Your task to perform on an android device: delete location history Image 0: 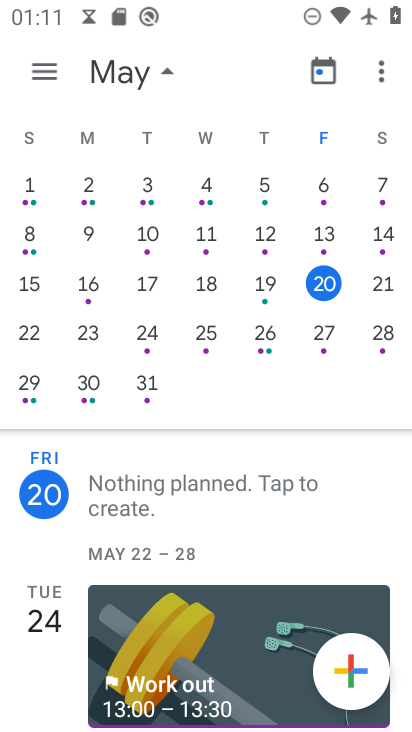
Step 0: press home button
Your task to perform on an android device: delete location history Image 1: 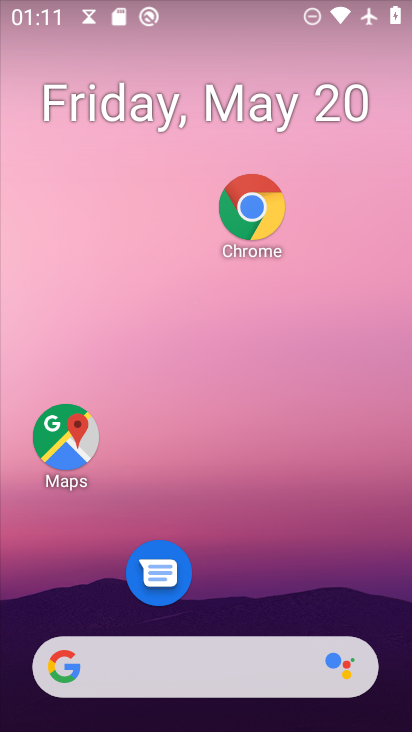
Step 1: drag from (215, 580) to (288, 123)
Your task to perform on an android device: delete location history Image 2: 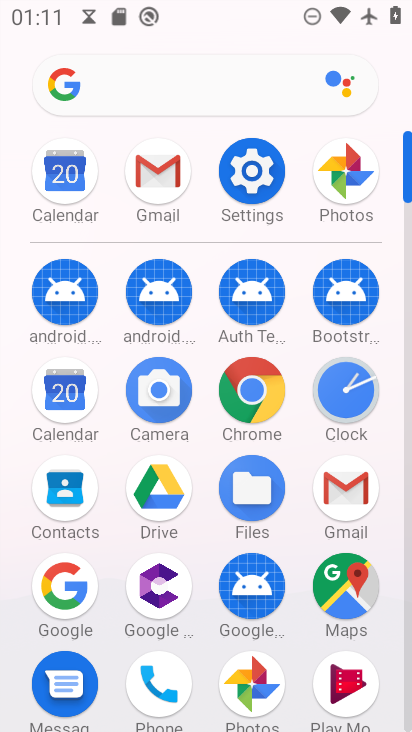
Step 2: click (349, 574)
Your task to perform on an android device: delete location history Image 3: 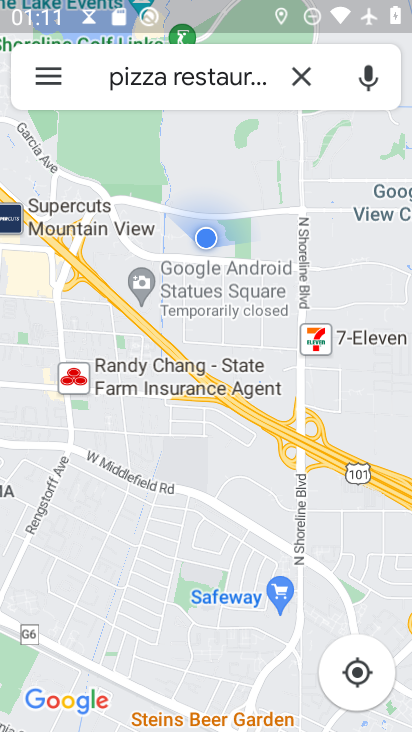
Step 3: click (55, 70)
Your task to perform on an android device: delete location history Image 4: 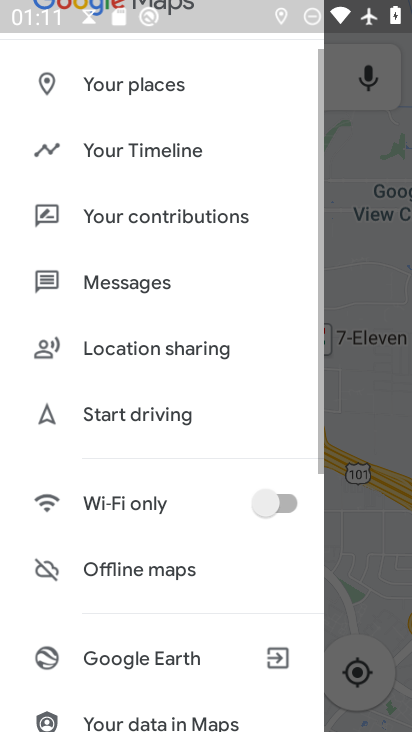
Step 4: click (130, 145)
Your task to perform on an android device: delete location history Image 5: 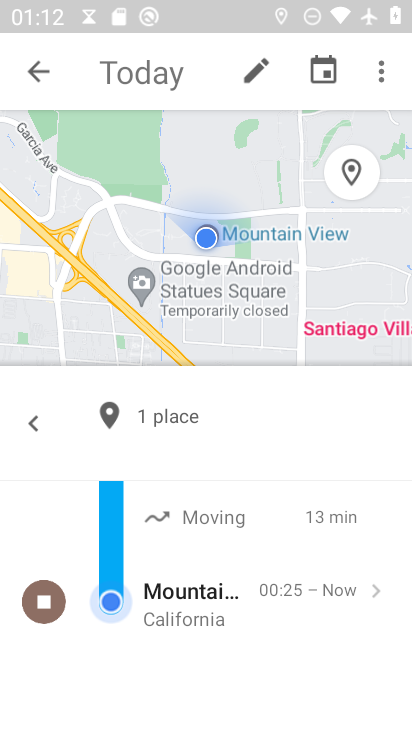
Step 5: click (379, 75)
Your task to perform on an android device: delete location history Image 6: 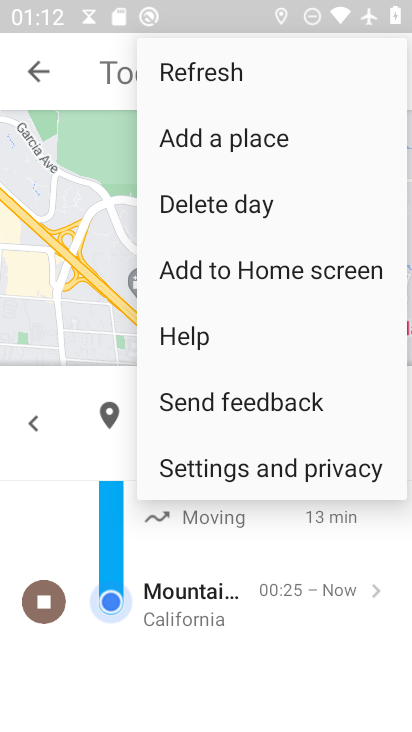
Step 6: click (210, 457)
Your task to perform on an android device: delete location history Image 7: 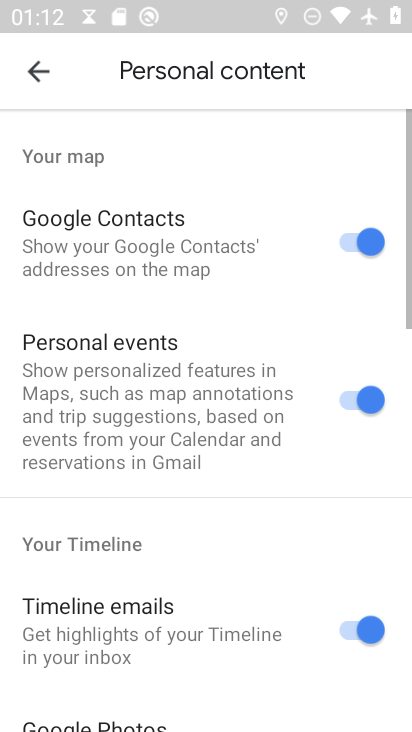
Step 7: drag from (113, 596) to (116, 160)
Your task to perform on an android device: delete location history Image 8: 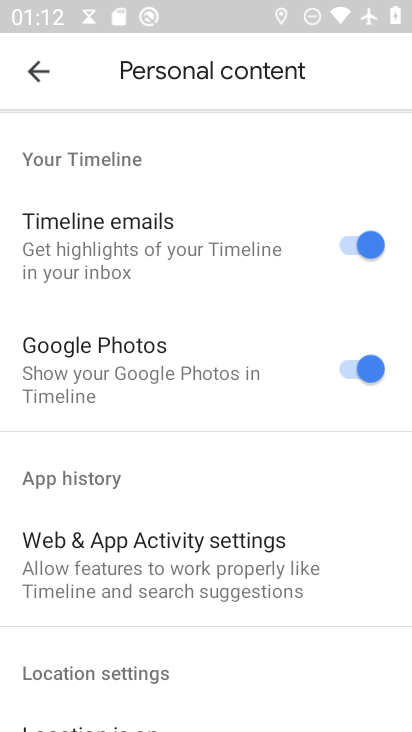
Step 8: drag from (156, 550) to (194, 188)
Your task to perform on an android device: delete location history Image 9: 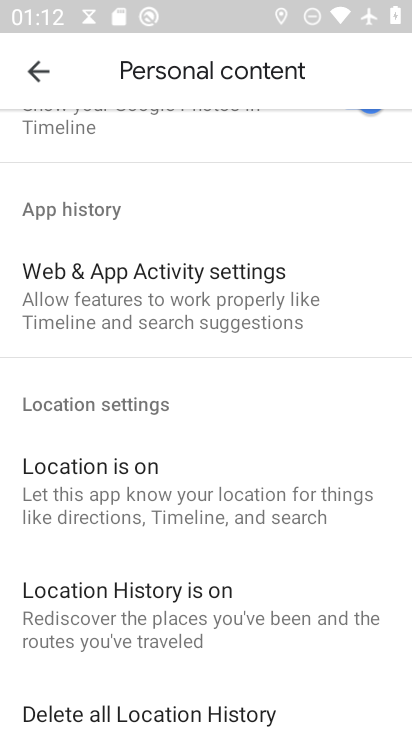
Step 9: drag from (104, 621) to (137, 190)
Your task to perform on an android device: delete location history Image 10: 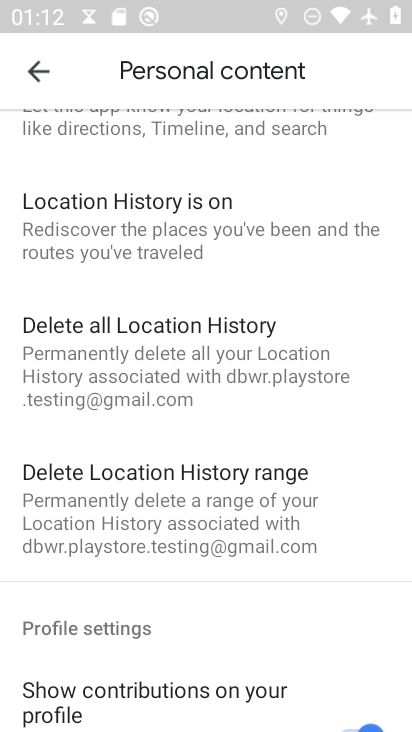
Step 10: click (131, 322)
Your task to perform on an android device: delete location history Image 11: 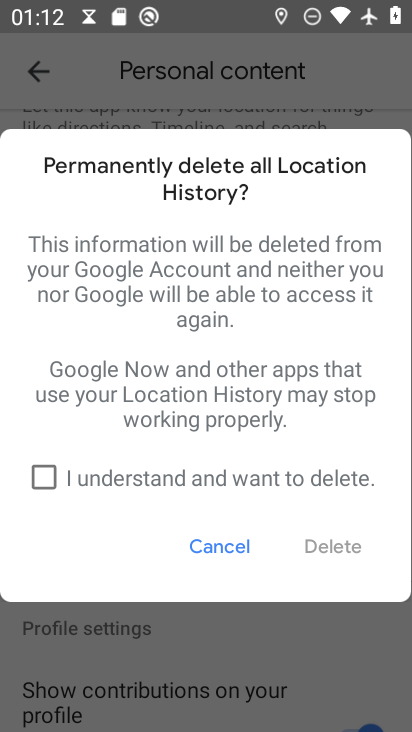
Step 11: click (34, 484)
Your task to perform on an android device: delete location history Image 12: 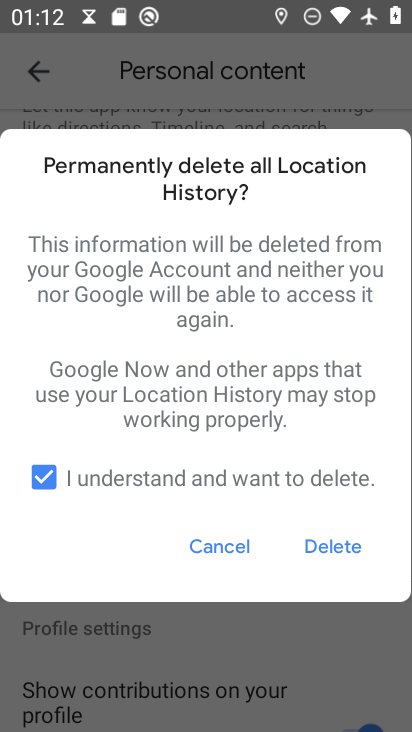
Step 12: click (346, 550)
Your task to perform on an android device: delete location history Image 13: 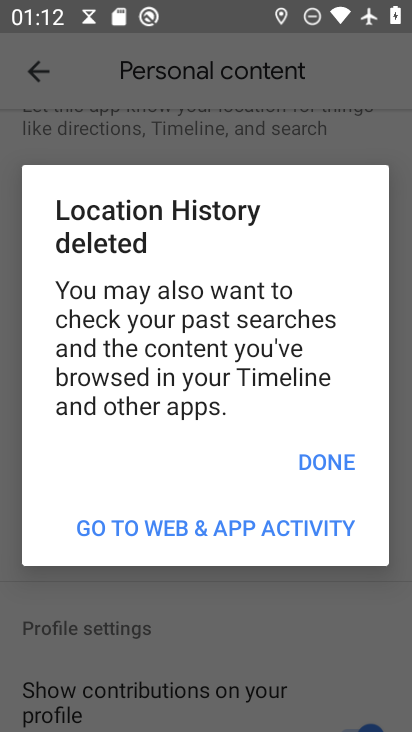
Step 13: task complete